Your task to perform on an android device: Go to sound settings Image 0: 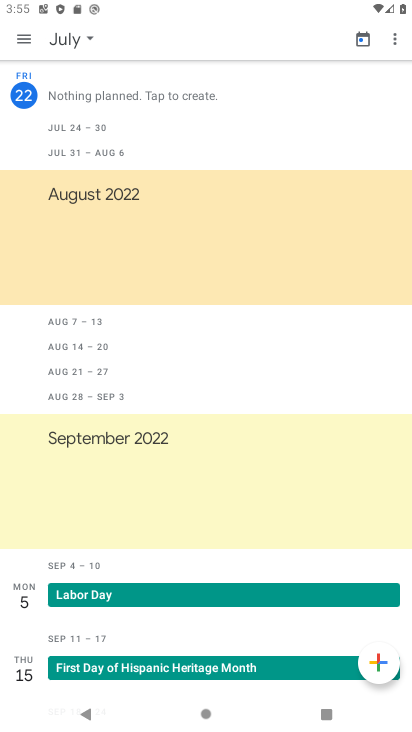
Step 0: press home button
Your task to perform on an android device: Go to sound settings Image 1: 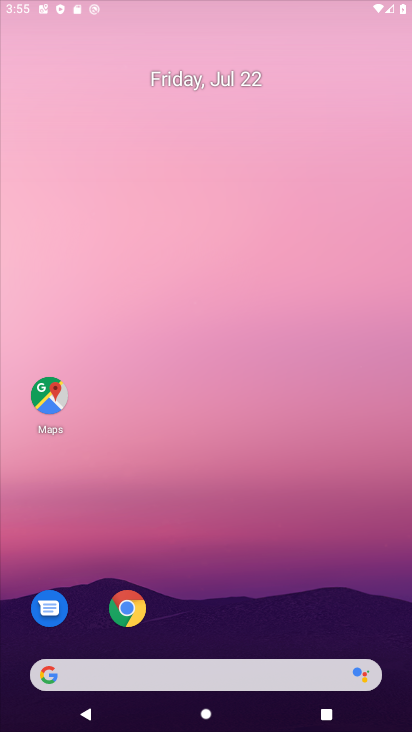
Step 1: drag from (244, 691) to (239, 171)
Your task to perform on an android device: Go to sound settings Image 2: 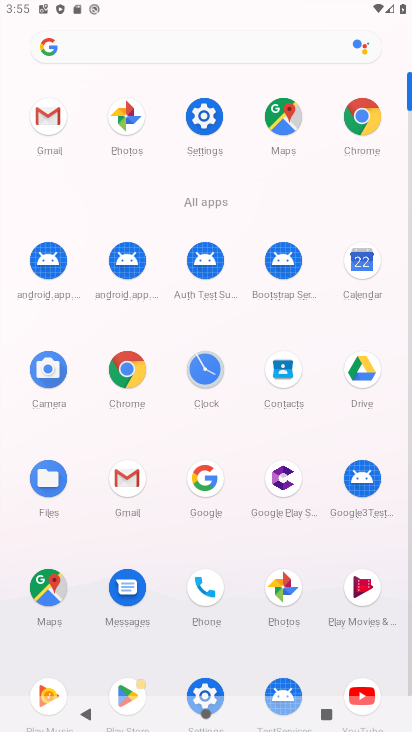
Step 2: click (211, 120)
Your task to perform on an android device: Go to sound settings Image 3: 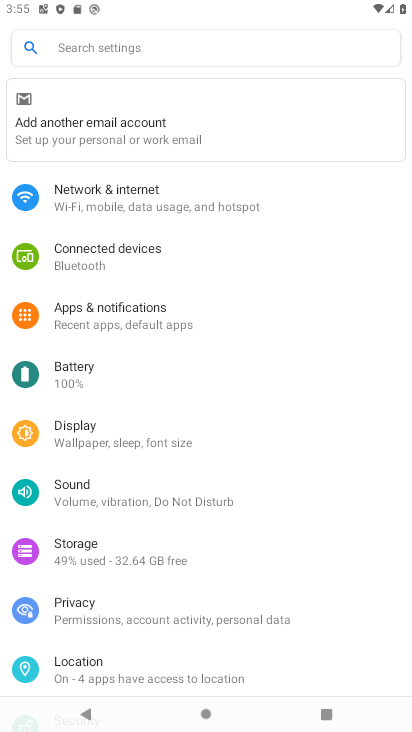
Step 3: click (79, 483)
Your task to perform on an android device: Go to sound settings Image 4: 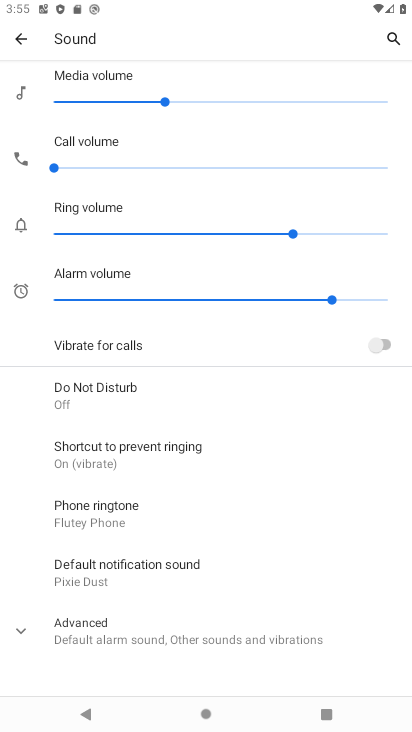
Step 4: task complete